Your task to perform on an android device: Open Youtube and go to "Your channel" Image 0: 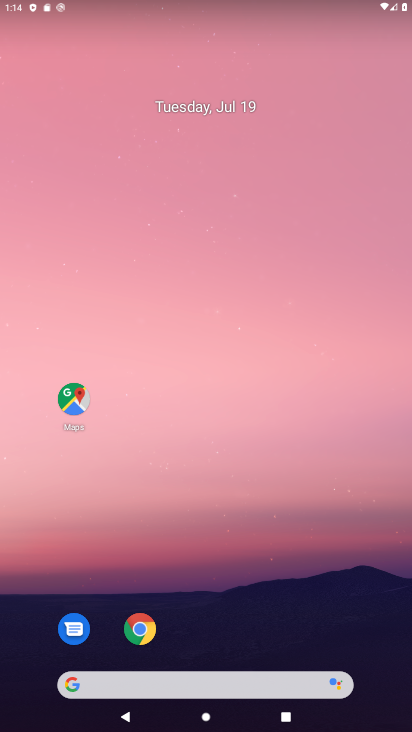
Step 0: drag from (213, 679) to (182, 185)
Your task to perform on an android device: Open Youtube and go to "Your channel" Image 1: 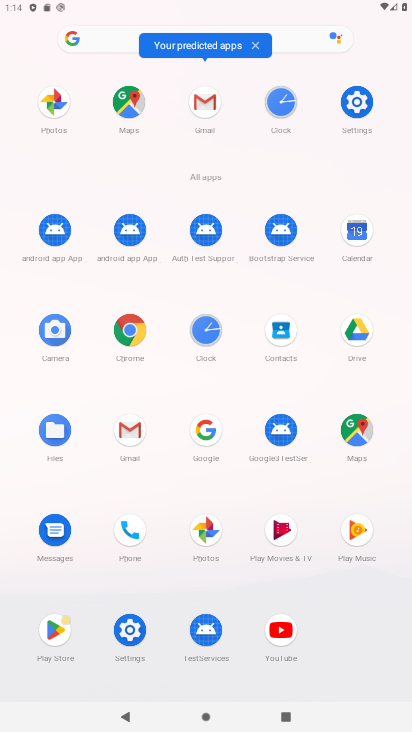
Step 1: click (283, 636)
Your task to perform on an android device: Open Youtube and go to "Your channel" Image 2: 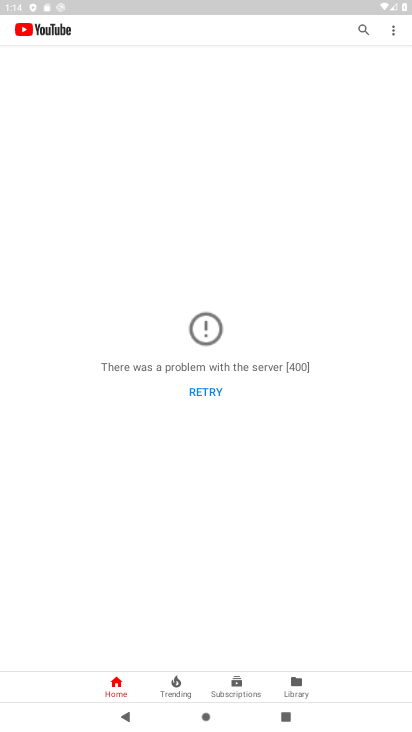
Step 2: click (294, 689)
Your task to perform on an android device: Open Youtube and go to "Your channel" Image 3: 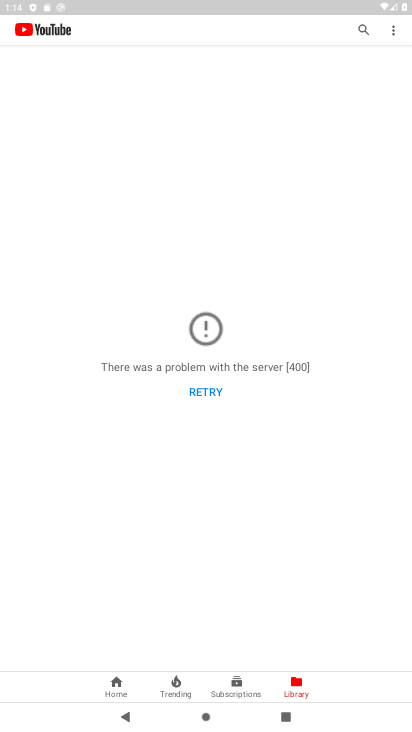
Step 3: task complete